Your task to perform on an android device: Go to Yahoo.com Image 0: 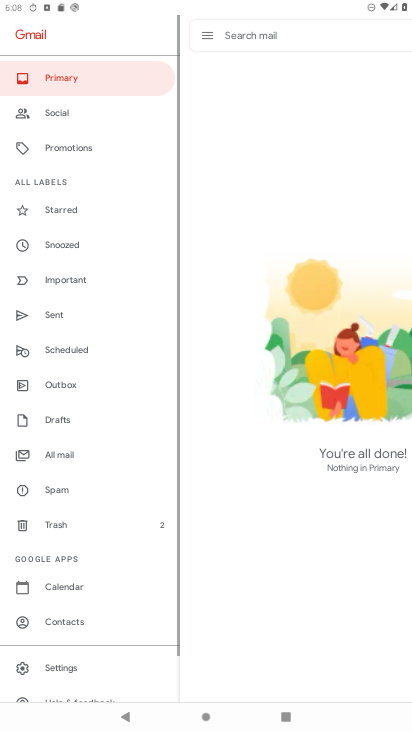
Step 0: press home button
Your task to perform on an android device: Go to Yahoo.com Image 1: 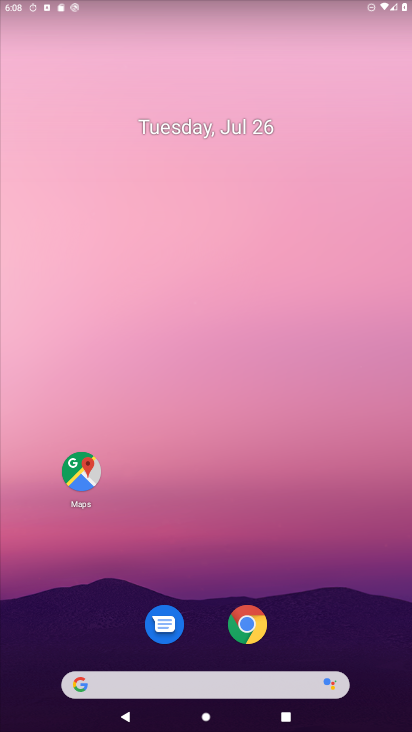
Step 1: drag from (167, 683) to (266, 0)
Your task to perform on an android device: Go to Yahoo.com Image 2: 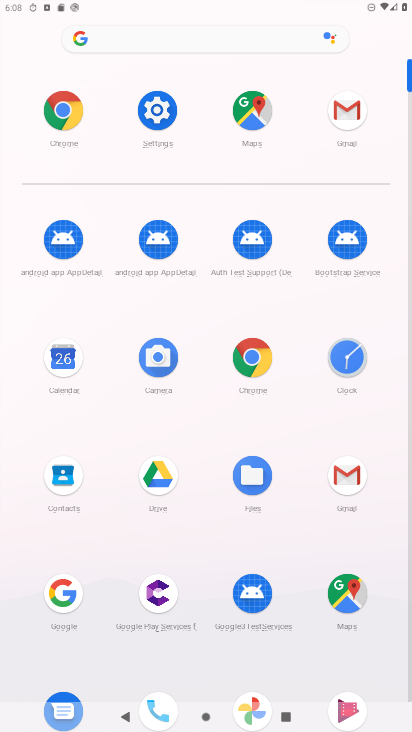
Step 2: click (240, 358)
Your task to perform on an android device: Go to Yahoo.com Image 3: 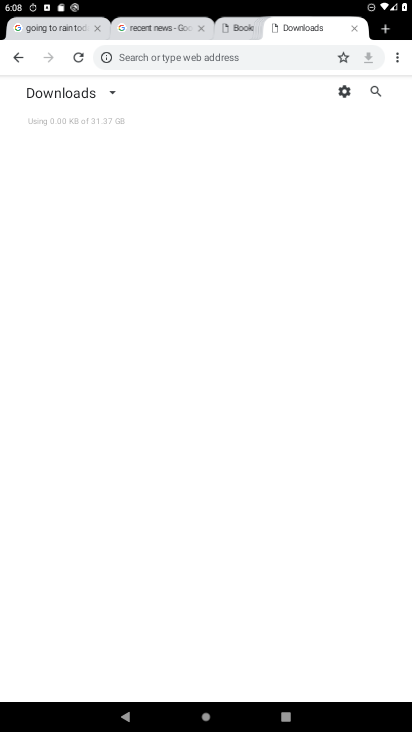
Step 3: click (201, 53)
Your task to perform on an android device: Go to Yahoo.com Image 4: 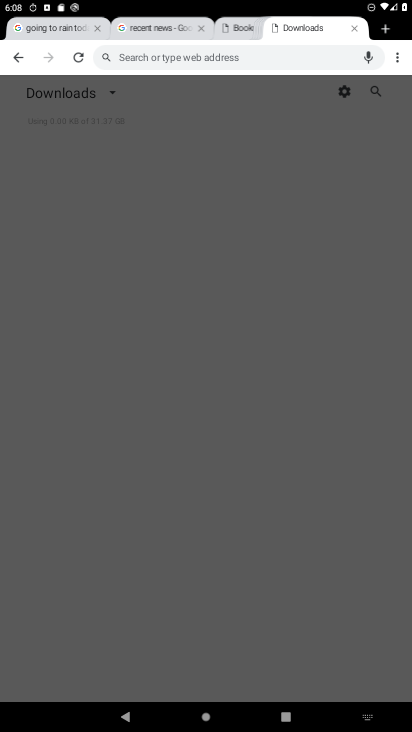
Step 4: type "yahoo.com"
Your task to perform on an android device: Go to Yahoo.com Image 5: 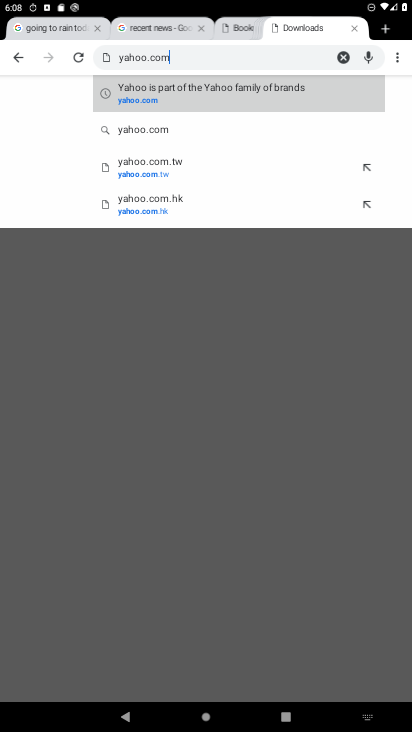
Step 5: click (201, 90)
Your task to perform on an android device: Go to Yahoo.com Image 6: 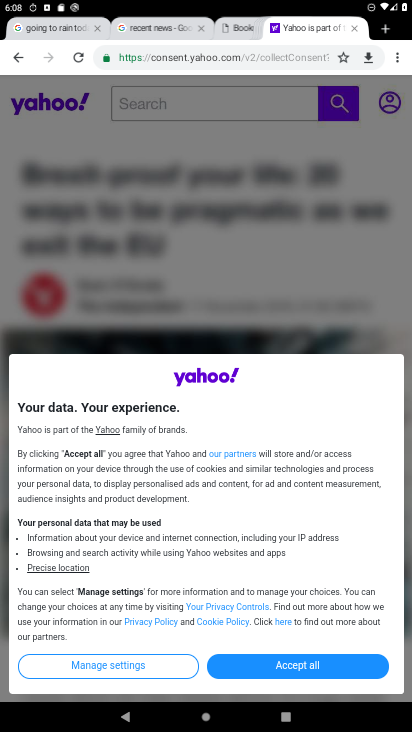
Step 6: task complete